Your task to perform on an android device: Do I have any events today? Image 0: 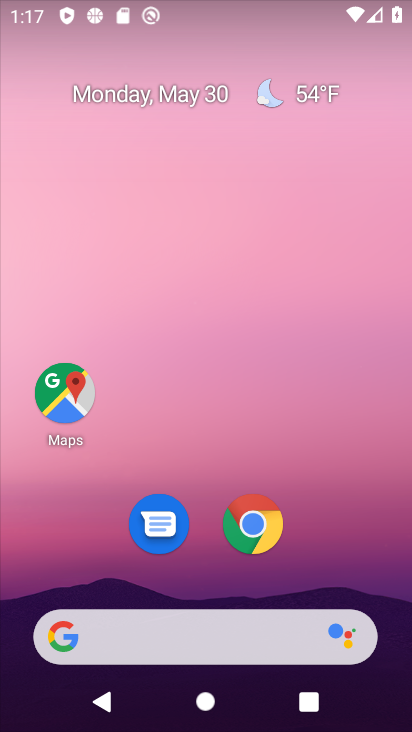
Step 0: drag from (208, 493) to (311, 63)
Your task to perform on an android device: Do I have any events today? Image 1: 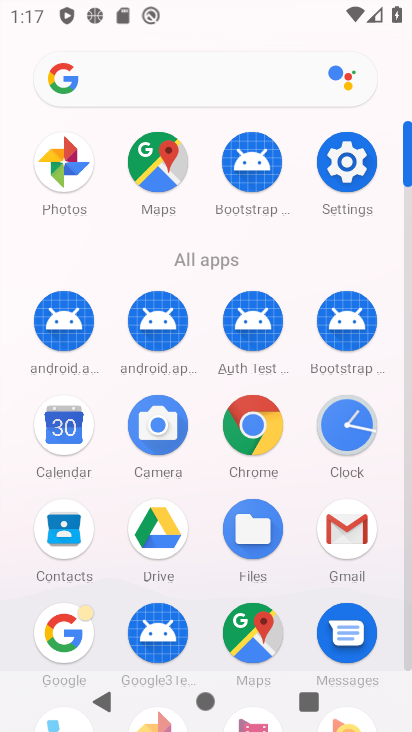
Step 1: click (66, 427)
Your task to perform on an android device: Do I have any events today? Image 2: 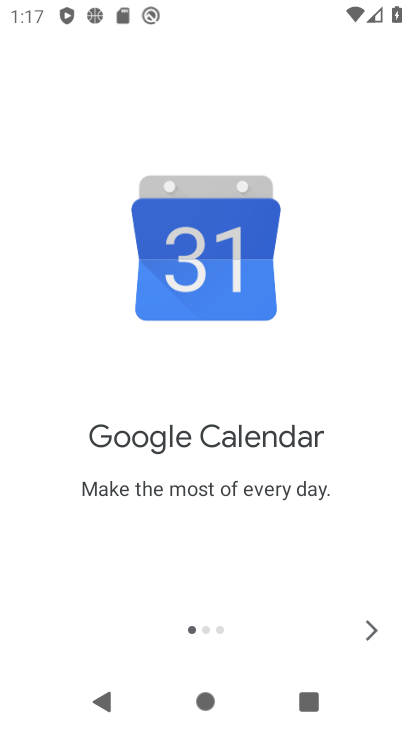
Step 2: click (369, 626)
Your task to perform on an android device: Do I have any events today? Image 3: 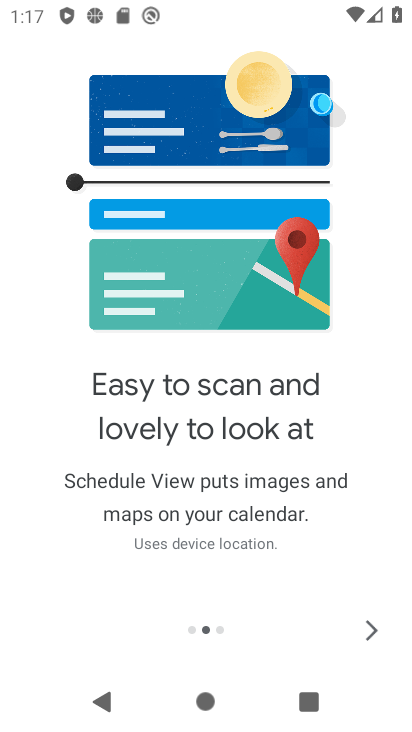
Step 3: click (369, 626)
Your task to perform on an android device: Do I have any events today? Image 4: 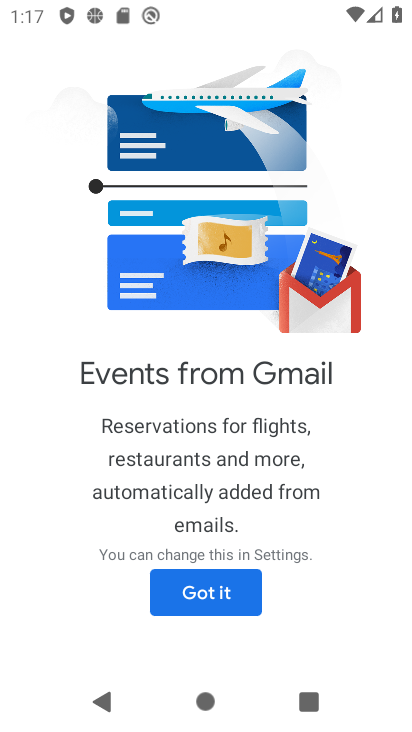
Step 4: click (243, 590)
Your task to perform on an android device: Do I have any events today? Image 5: 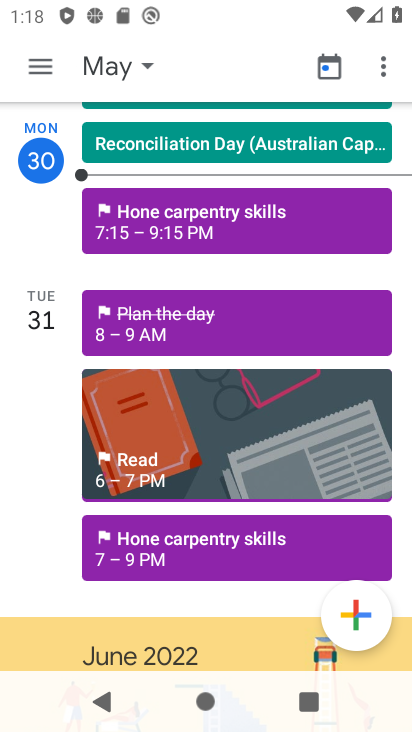
Step 5: task complete